Your task to perform on an android device: Open Google Chrome Image 0: 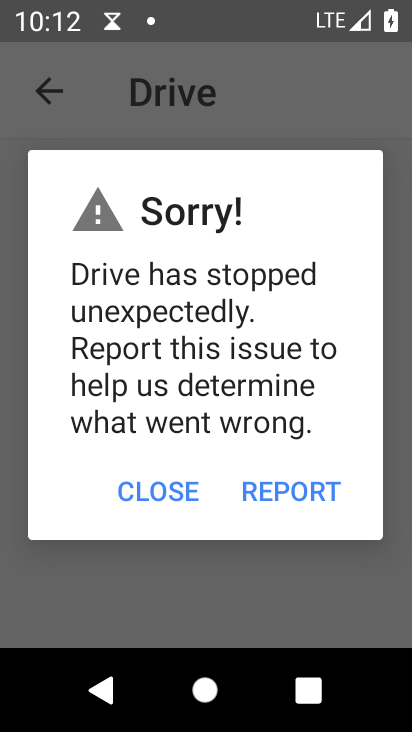
Step 0: press home button
Your task to perform on an android device: Open Google Chrome Image 1: 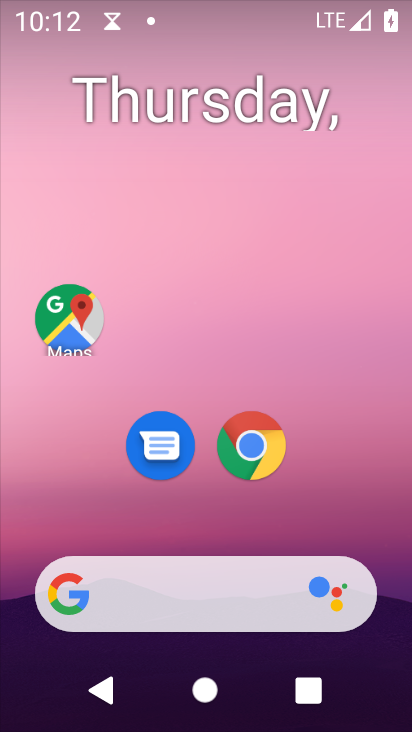
Step 1: click (245, 474)
Your task to perform on an android device: Open Google Chrome Image 2: 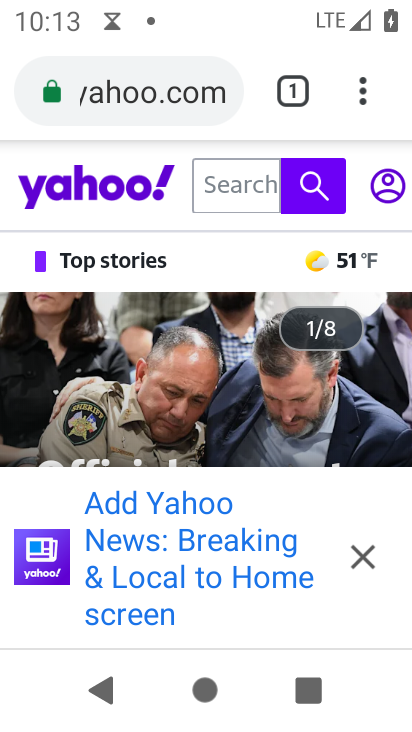
Step 2: task complete